Your task to perform on an android device: toggle wifi Image 0: 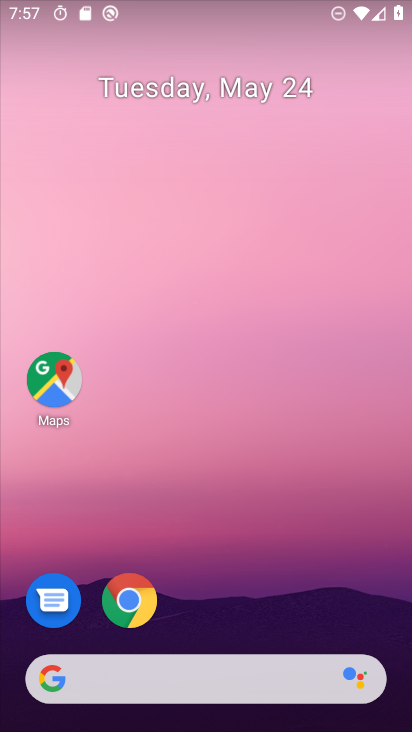
Step 0: drag from (92, 16) to (167, 533)
Your task to perform on an android device: toggle wifi Image 1: 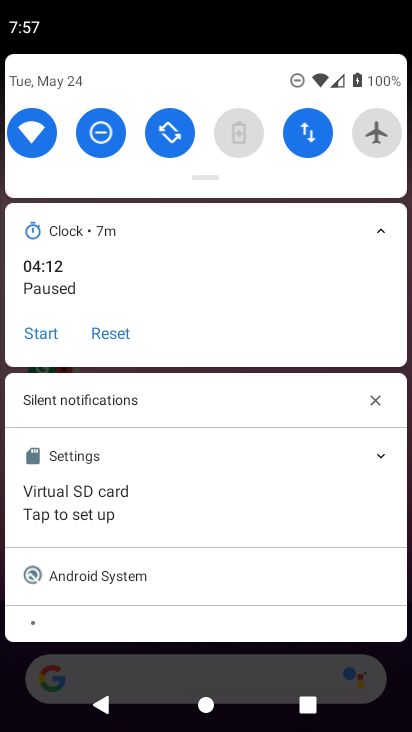
Step 1: click (35, 137)
Your task to perform on an android device: toggle wifi Image 2: 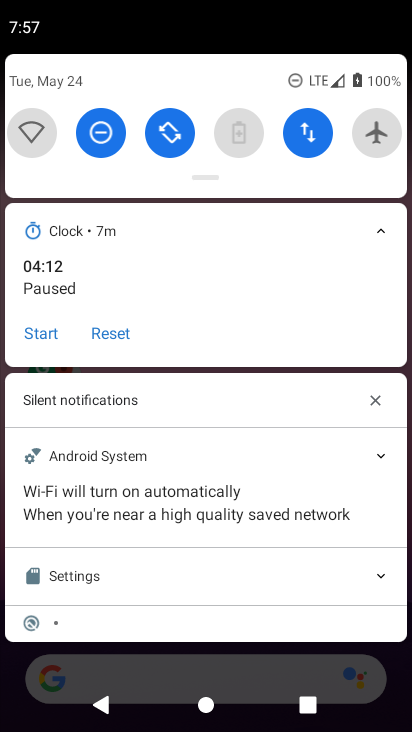
Step 2: task complete